Your task to perform on an android device: change the upload size in google photos Image 0: 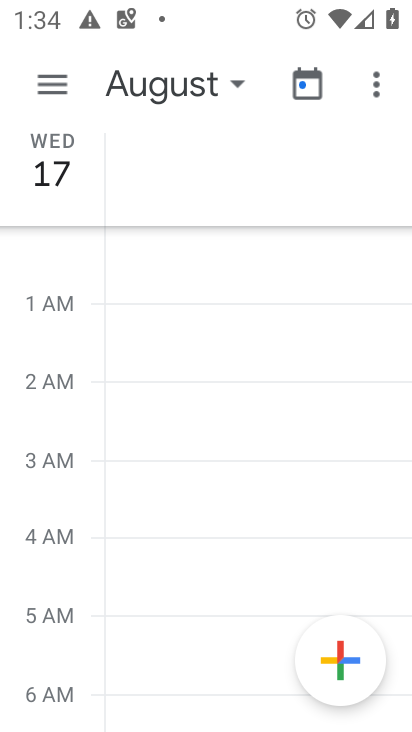
Step 0: press home button
Your task to perform on an android device: change the upload size in google photos Image 1: 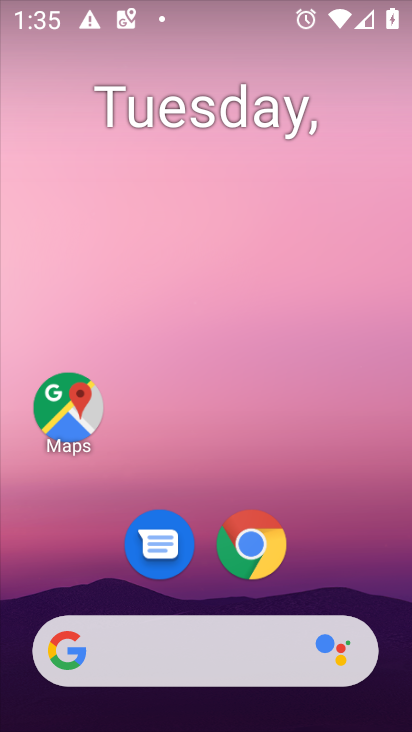
Step 1: drag from (327, 442) to (337, 106)
Your task to perform on an android device: change the upload size in google photos Image 2: 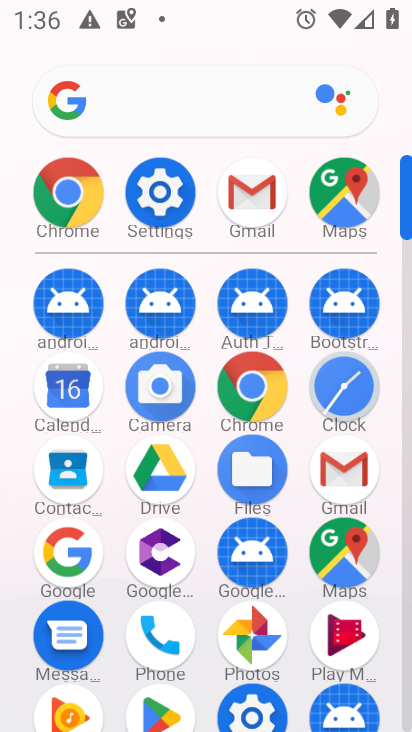
Step 2: click (245, 628)
Your task to perform on an android device: change the upload size in google photos Image 3: 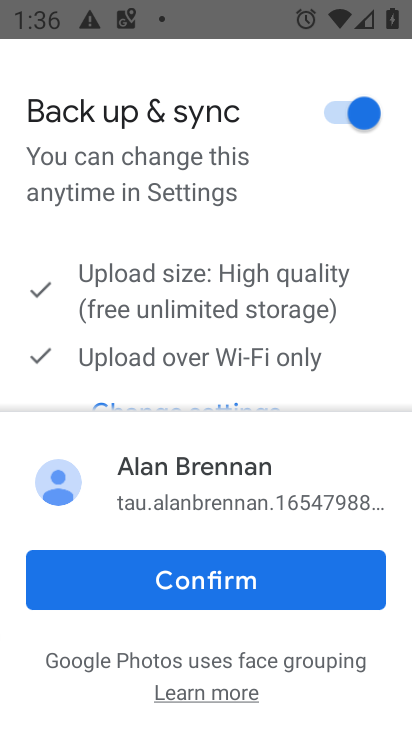
Step 3: click (245, 586)
Your task to perform on an android device: change the upload size in google photos Image 4: 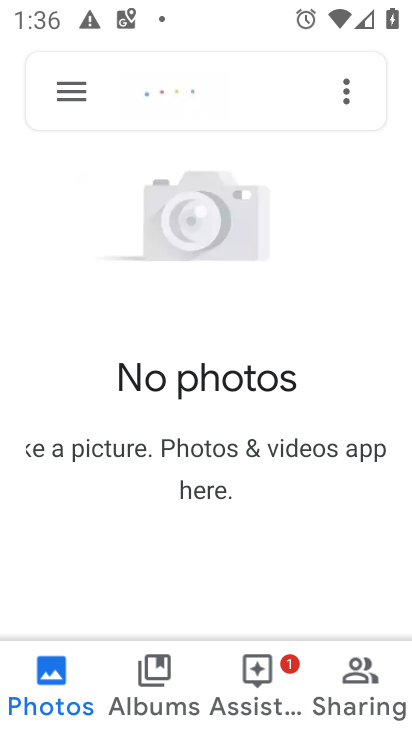
Step 4: click (85, 108)
Your task to perform on an android device: change the upload size in google photos Image 5: 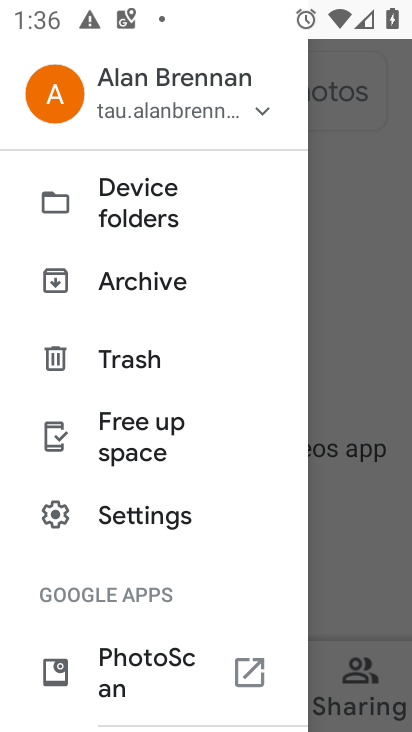
Step 5: click (129, 519)
Your task to perform on an android device: change the upload size in google photos Image 6: 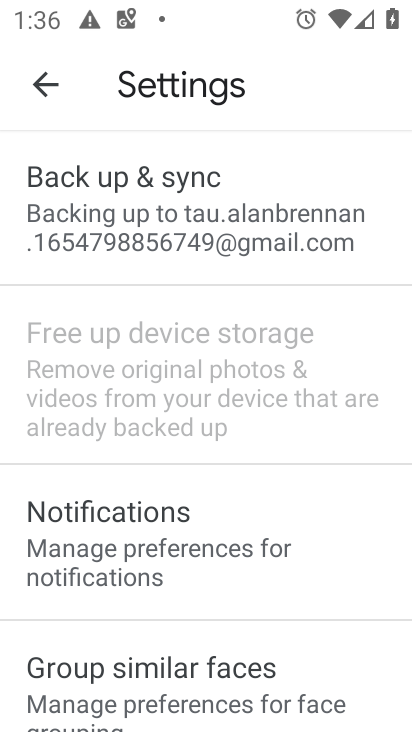
Step 6: drag from (194, 585) to (235, 79)
Your task to perform on an android device: change the upload size in google photos Image 7: 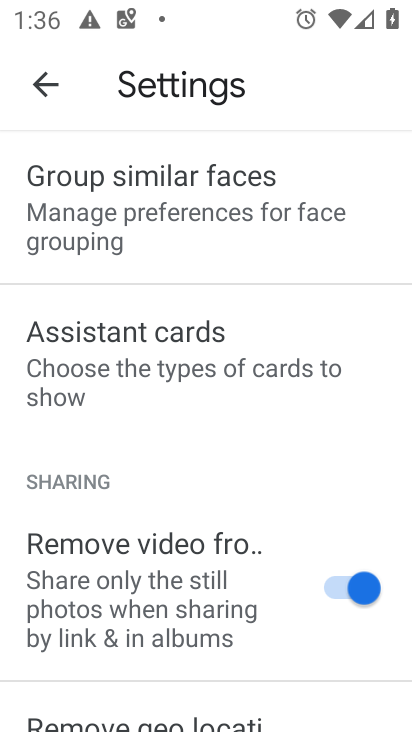
Step 7: drag from (206, 292) to (219, 727)
Your task to perform on an android device: change the upload size in google photos Image 8: 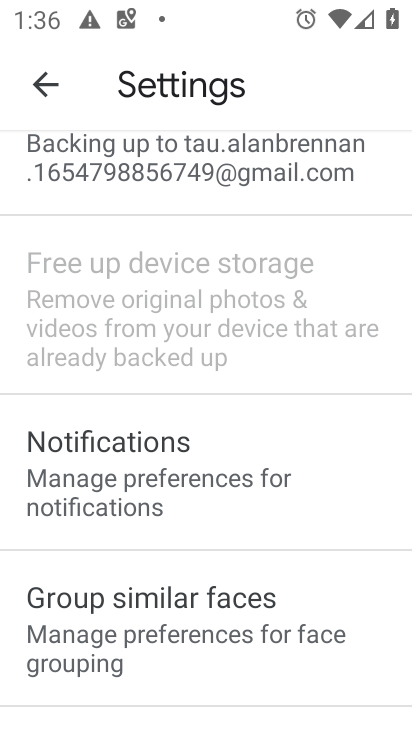
Step 8: drag from (186, 206) to (195, 594)
Your task to perform on an android device: change the upload size in google photos Image 9: 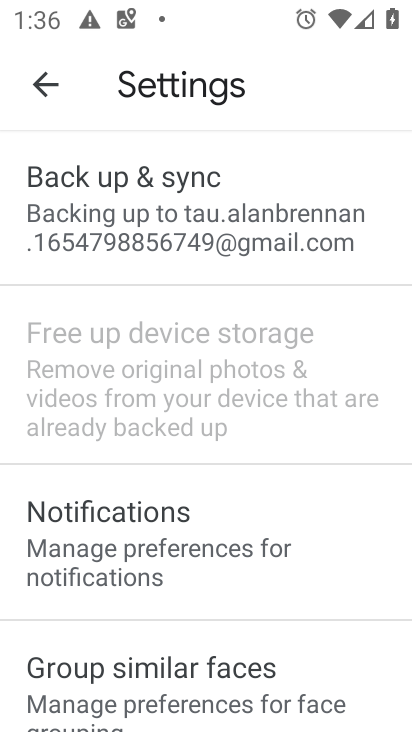
Step 9: click (185, 211)
Your task to perform on an android device: change the upload size in google photos Image 10: 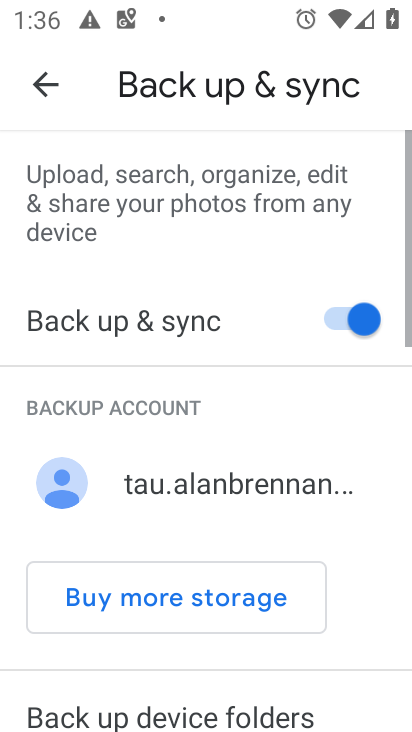
Step 10: drag from (221, 502) to (238, 1)
Your task to perform on an android device: change the upload size in google photos Image 11: 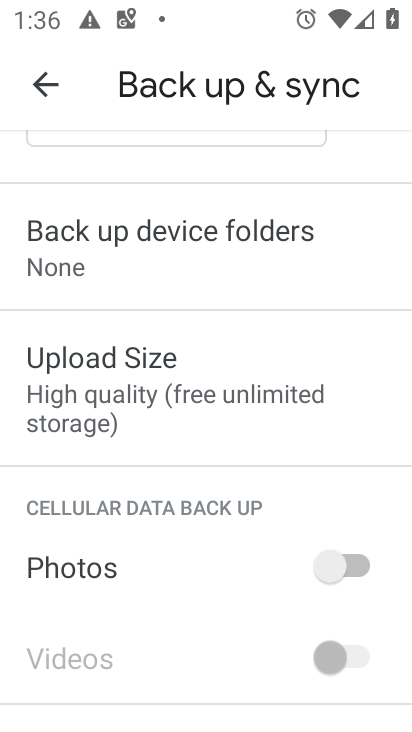
Step 11: click (173, 385)
Your task to perform on an android device: change the upload size in google photos Image 12: 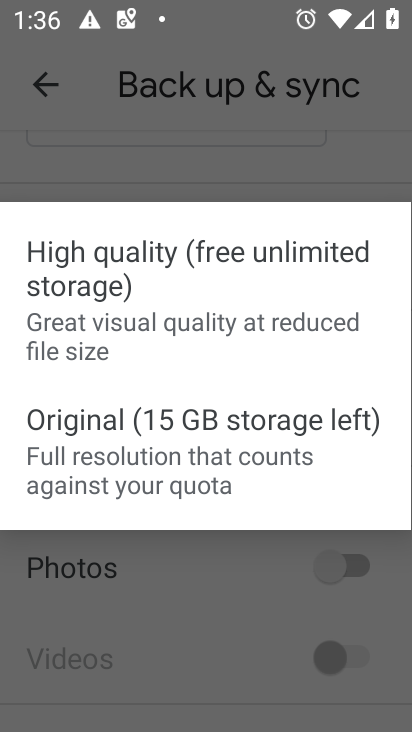
Step 12: click (156, 432)
Your task to perform on an android device: change the upload size in google photos Image 13: 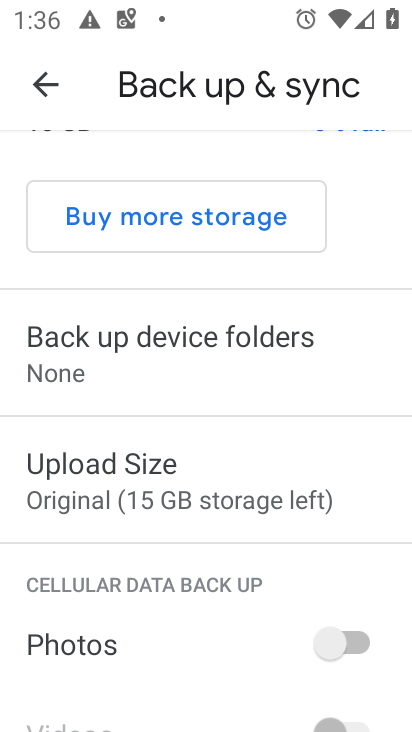
Step 13: task complete